Your task to perform on an android device: Open Google Chrome and click the shortcut for Amazon.com Image 0: 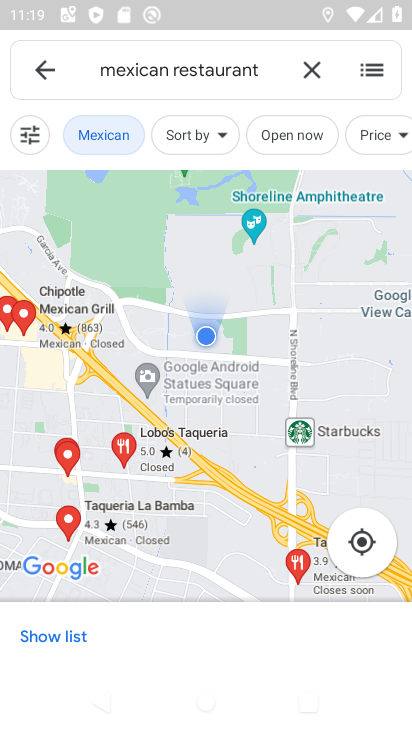
Step 0: press home button
Your task to perform on an android device: Open Google Chrome and click the shortcut for Amazon.com Image 1: 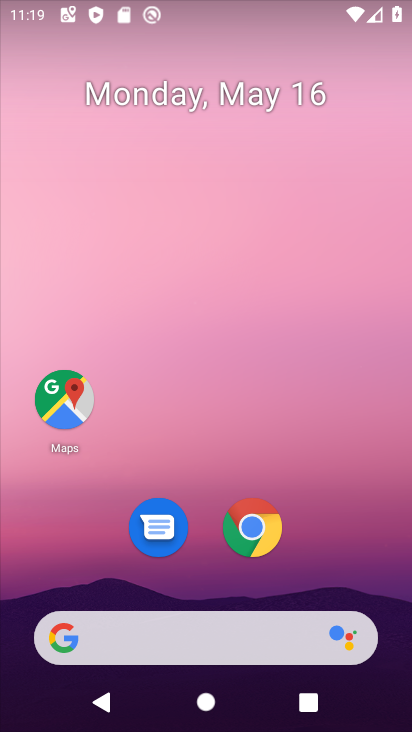
Step 1: drag from (264, 658) to (328, 154)
Your task to perform on an android device: Open Google Chrome and click the shortcut for Amazon.com Image 2: 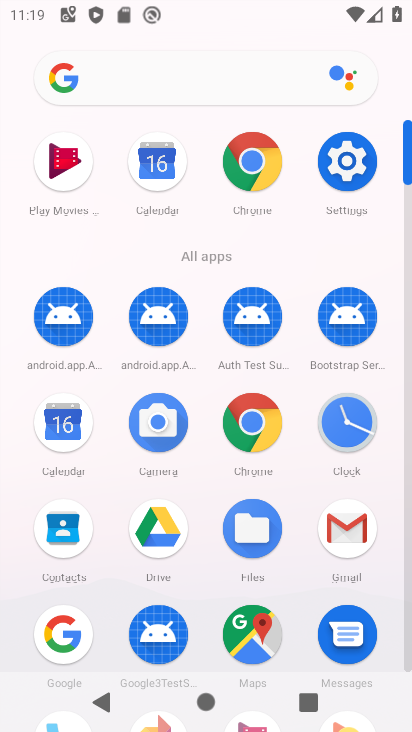
Step 2: click (241, 188)
Your task to perform on an android device: Open Google Chrome and click the shortcut for Amazon.com Image 3: 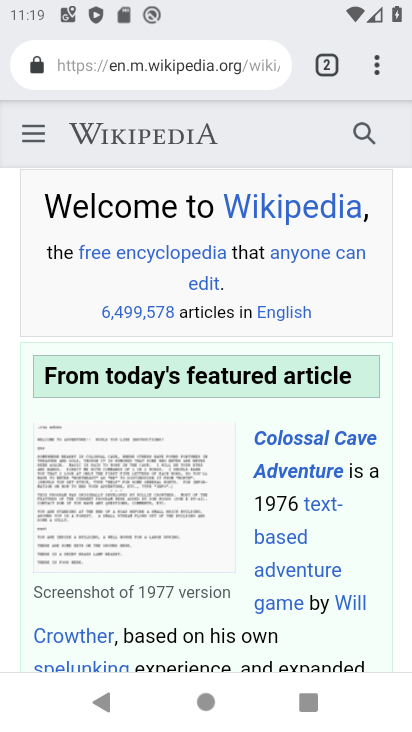
Step 3: click (326, 68)
Your task to perform on an android device: Open Google Chrome and click the shortcut for Amazon.com Image 4: 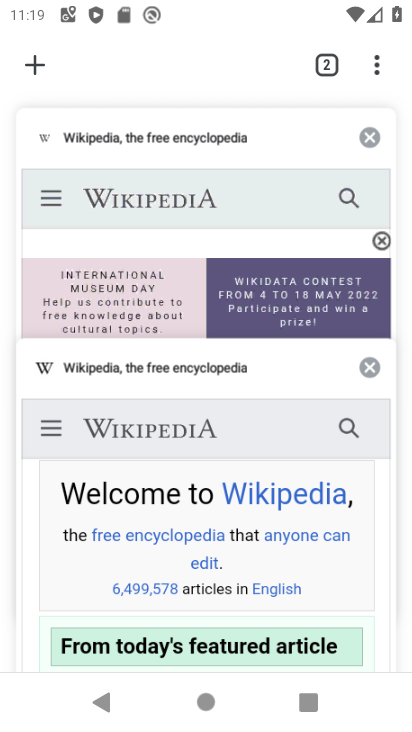
Step 4: click (38, 61)
Your task to perform on an android device: Open Google Chrome and click the shortcut for Amazon.com Image 5: 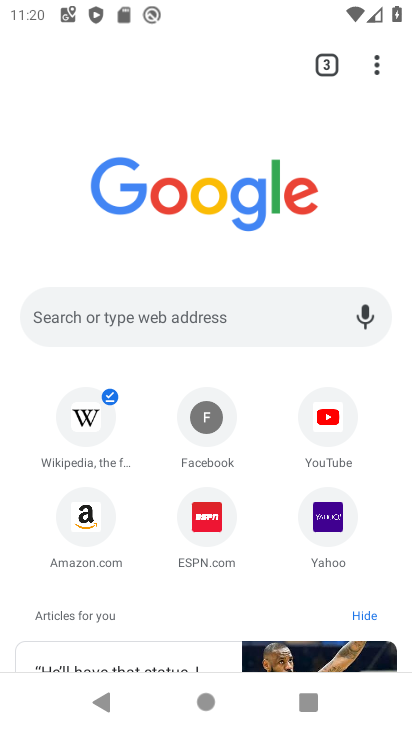
Step 5: click (98, 520)
Your task to perform on an android device: Open Google Chrome and click the shortcut for Amazon.com Image 6: 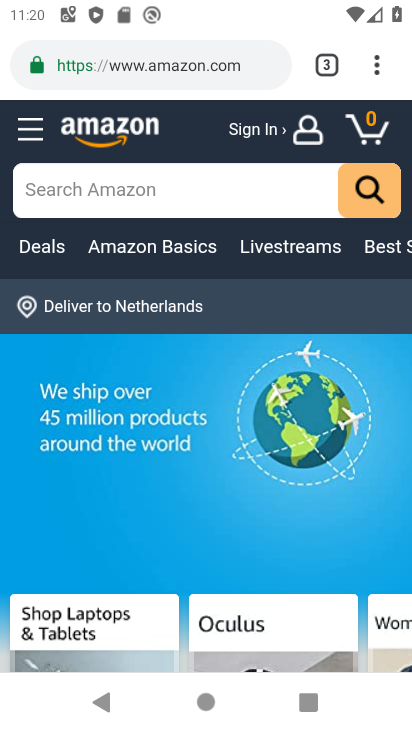
Step 6: click (370, 74)
Your task to perform on an android device: Open Google Chrome and click the shortcut for Amazon.com Image 7: 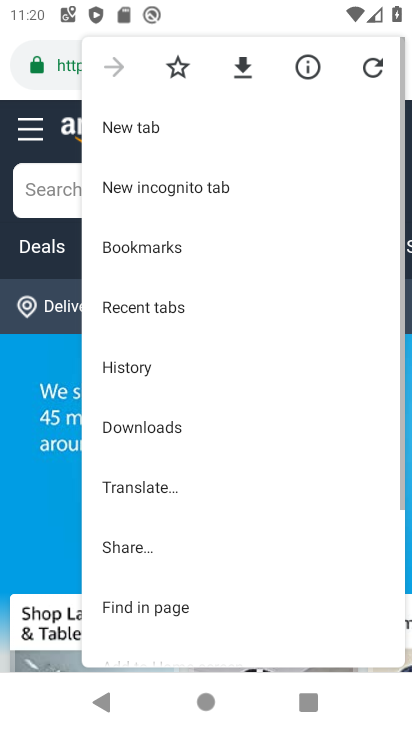
Step 7: drag from (217, 569) to (207, 431)
Your task to perform on an android device: Open Google Chrome and click the shortcut for Amazon.com Image 8: 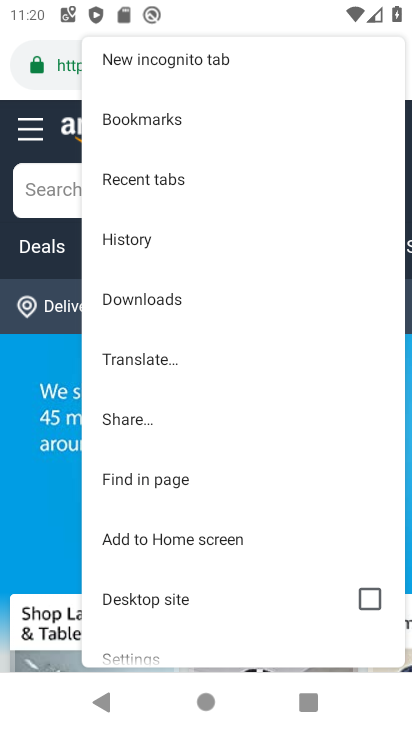
Step 8: click (190, 546)
Your task to perform on an android device: Open Google Chrome and click the shortcut for Amazon.com Image 9: 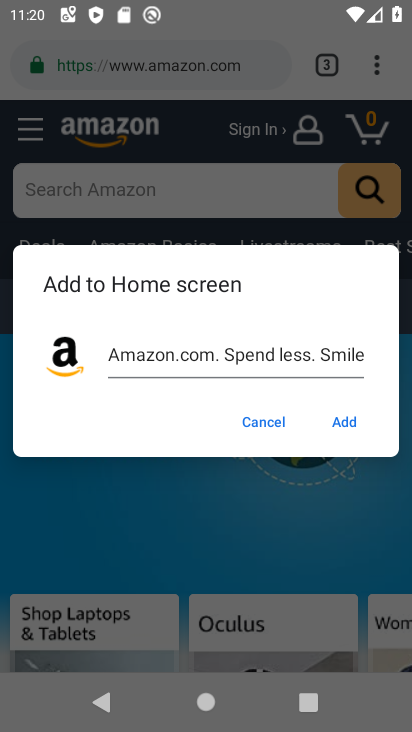
Step 9: click (337, 418)
Your task to perform on an android device: Open Google Chrome and click the shortcut for Amazon.com Image 10: 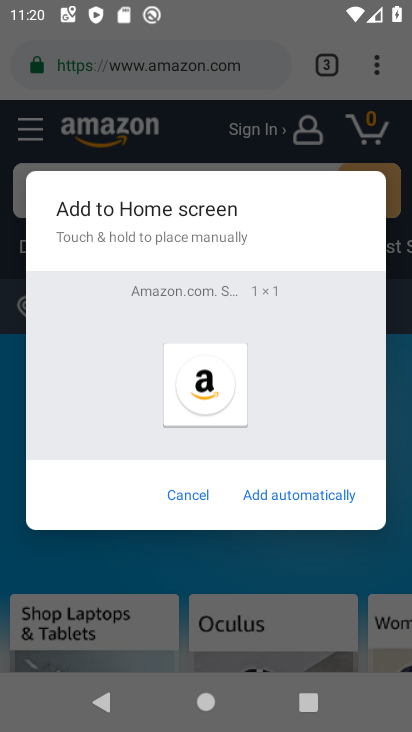
Step 10: click (311, 493)
Your task to perform on an android device: Open Google Chrome and click the shortcut for Amazon.com Image 11: 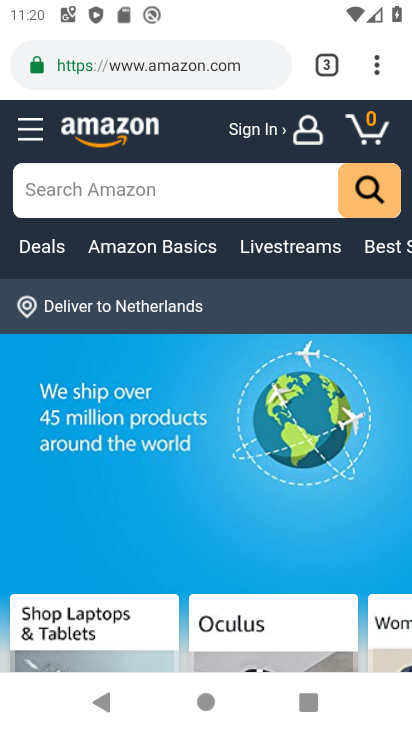
Step 11: task complete